Your task to perform on an android device: Go to Android settings Image 0: 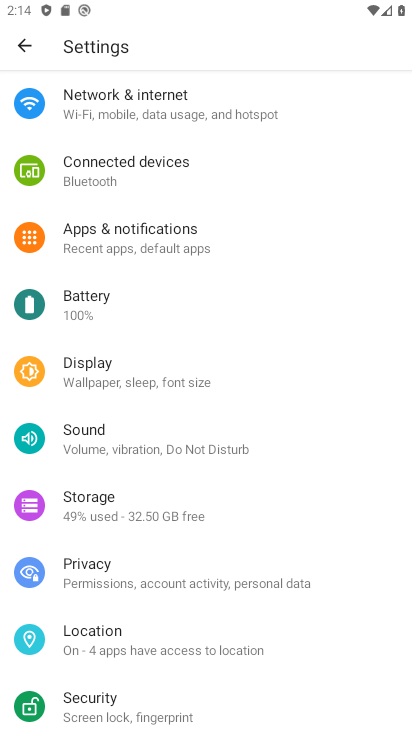
Step 0: press home button
Your task to perform on an android device: Go to Android settings Image 1: 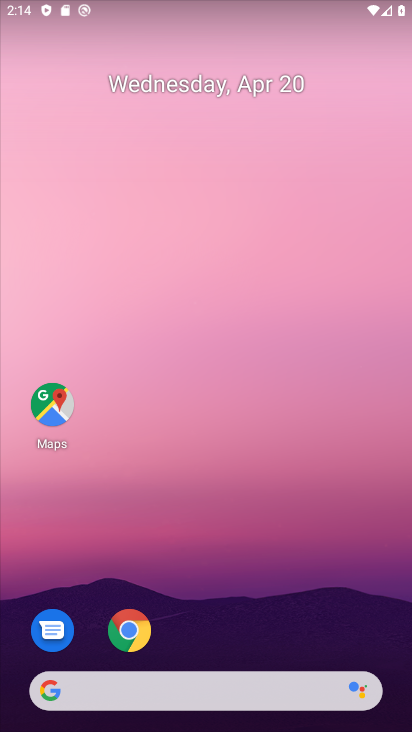
Step 1: drag from (245, 582) to (116, 126)
Your task to perform on an android device: Go to Android settings Image 2: 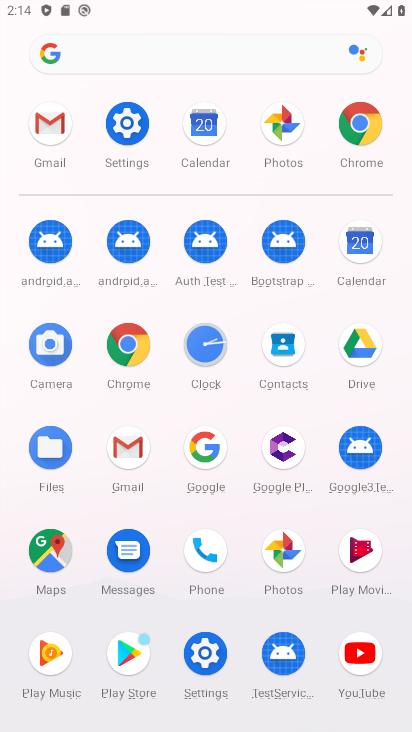
Step 2: click (136, 124)
Your task to perform on an android device: Go to Android settings Image 3: 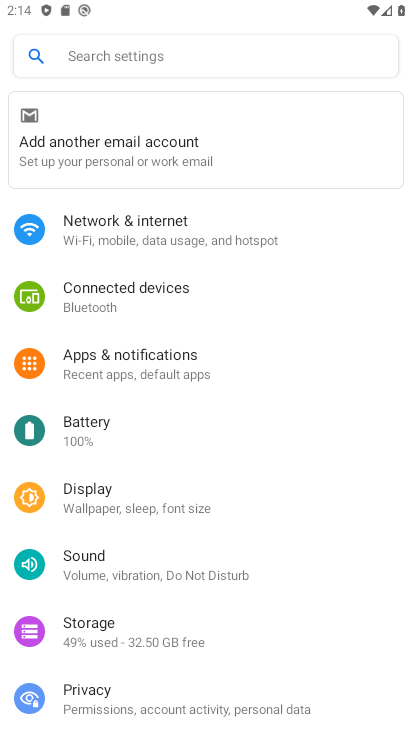
Step 3: drag from (166, 595) to (171, 232)
Your task to perform on an android device: Go to Android settings Image 4: 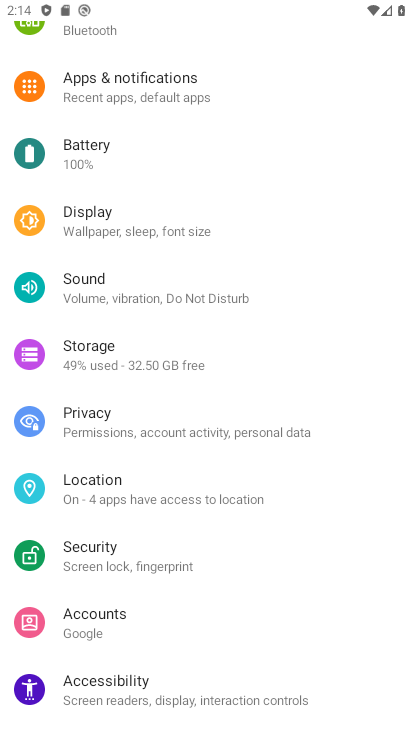
Step 4: drag from (103, 622) to (119, 302)
Your task to perform on an android device: Go to Android settings Image 5: 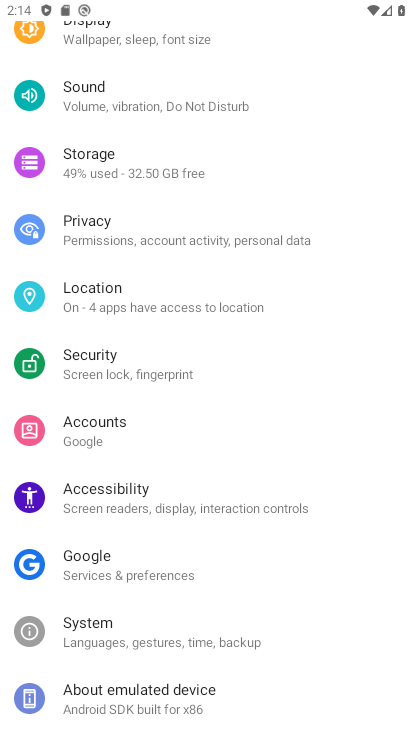
Step 5: click (164, 703)
Your task to perform on an android device: Go to Android settings Image 6: 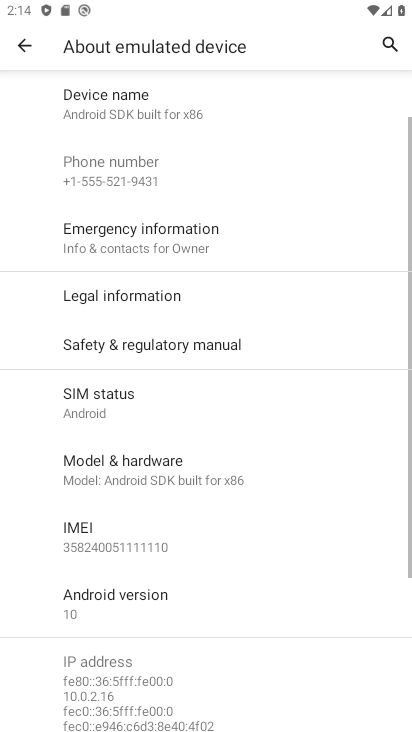
Step 6: click (104, 604)
Your task to perform on an android device: Go to Android settings Image 7: 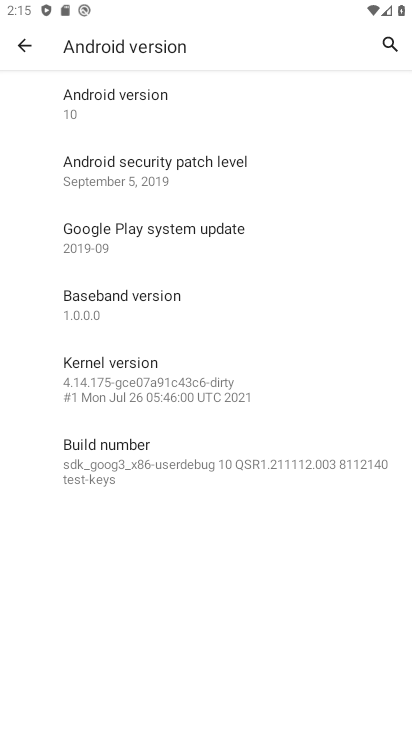
Step 7: click (109, 99)
Your task to perform on an android device: Go to Android settings Image 8: 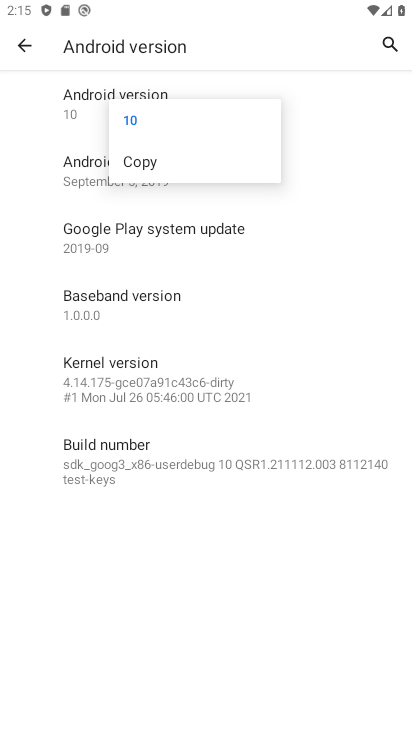
Step 8: click (189, 542)
Your task to perform on an android device: Go to Android settings Image 9: 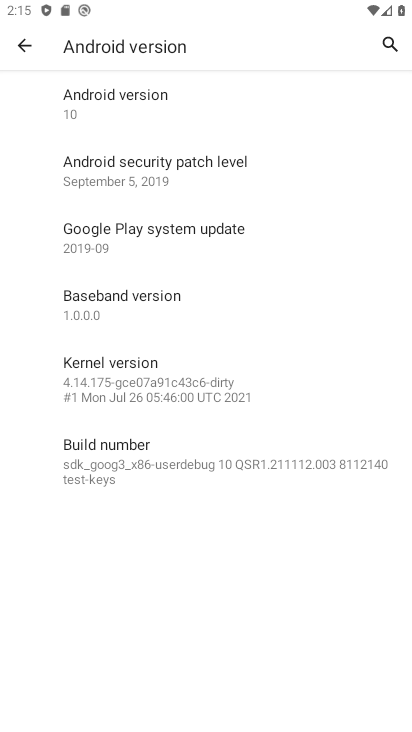
Step 9: task complete